Your task to perform on an android device: open wifi settings Image 0: 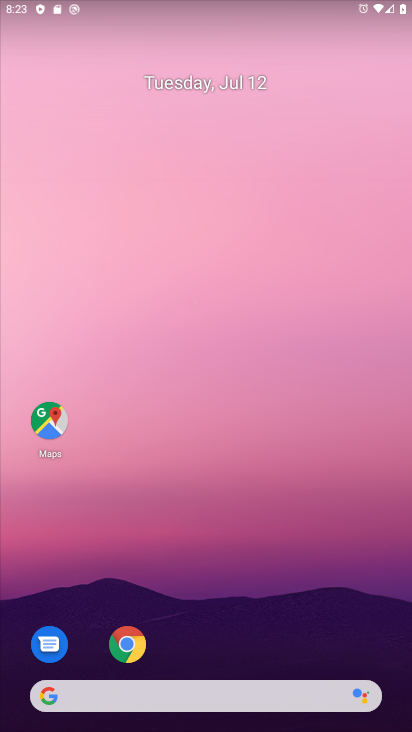
Step 0: drag from (59, 590) to (408, 712)
Your task to perform on an android device: open wifi settings Image 1: 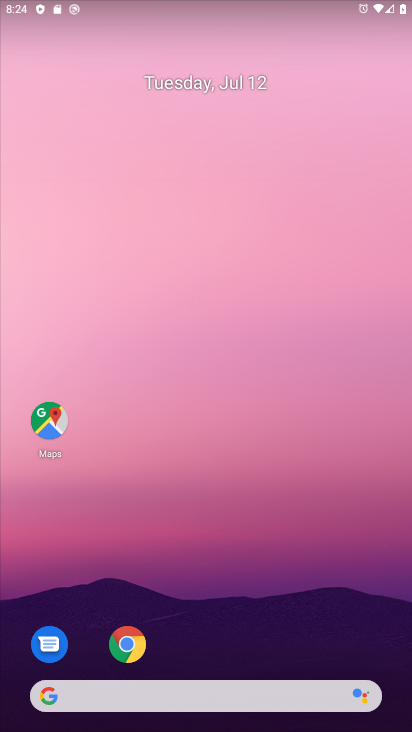
Step 1: drag from (75, 524) to (262, 97)
Your task to perform on an android device: open wifi settings Image 2: 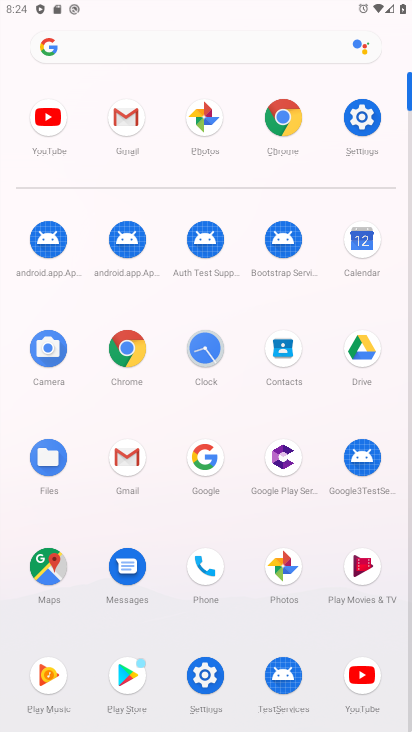
Step 2: click (200, 683)
Your task to perform on an android device: open wifi settings Image 3: 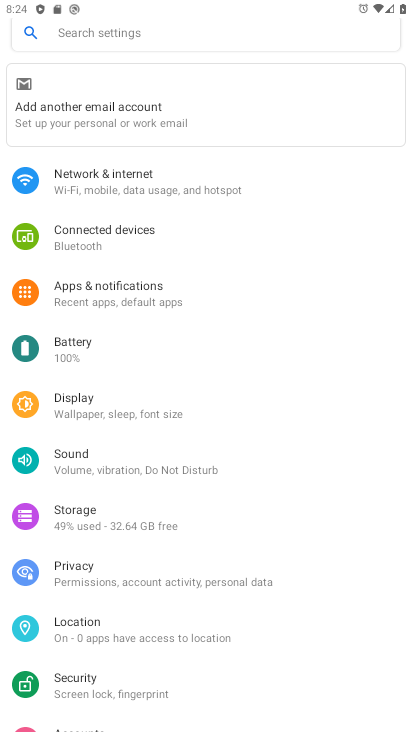
Step 3: click (96, 180)
Your task to perform on an android device: open wifi settings Image 4: 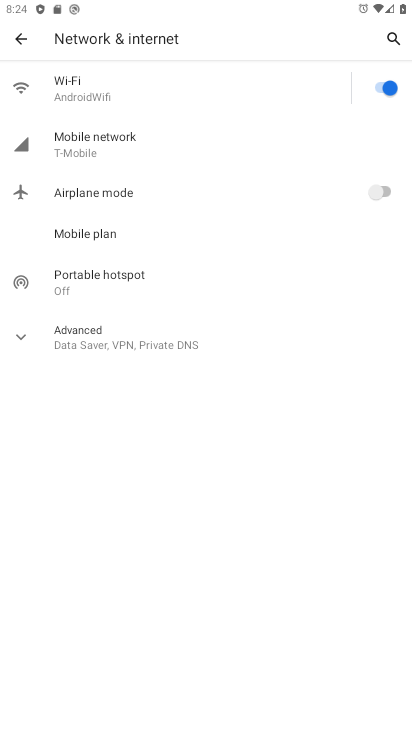
Step 4: task complete